Your task to perform on an android device: open wifi settings Image 0: 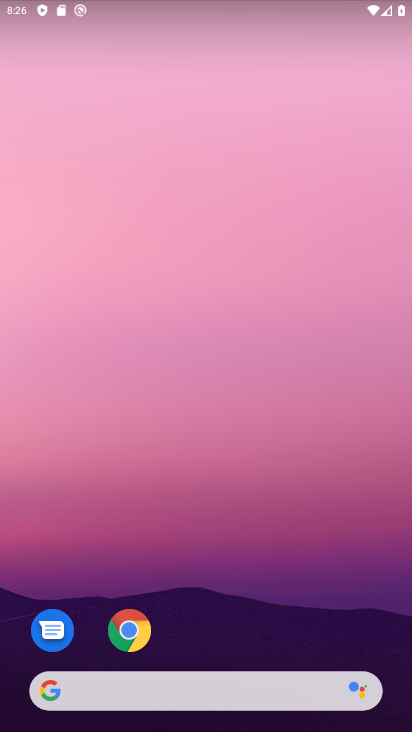
Step 0: drag from (379, 651) to (384, 149)
Your task to perform on an android device: open wifi settings Image 1: 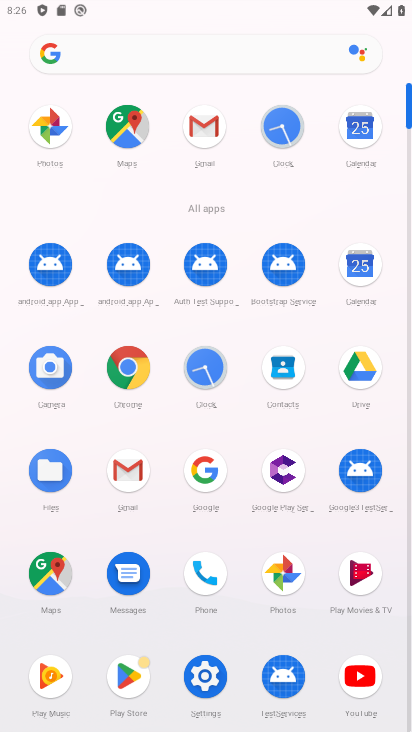
Step 1: click (203, 679)
Your task to perform on an android device: open wifi settings Image 2: 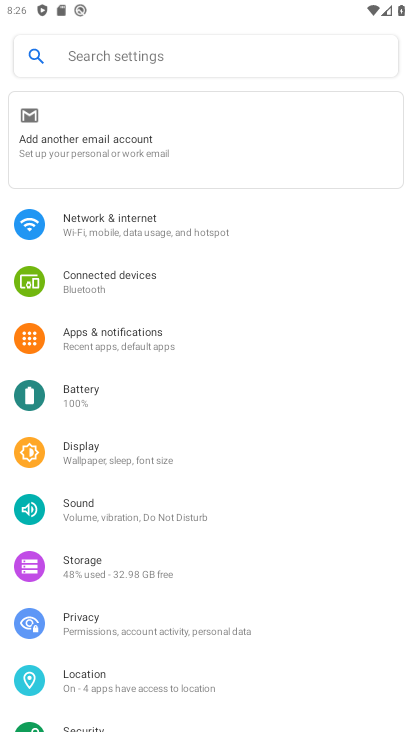
Step 2: click (89, 219)
Your task to perform on an android device: open wifi settings Image 3: 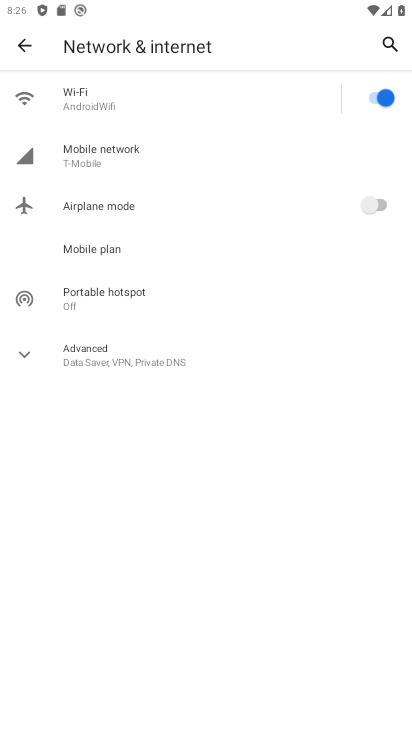
Step 3: click (21, 355)
Your task to perform on an android device: open wifi settings Image 4: 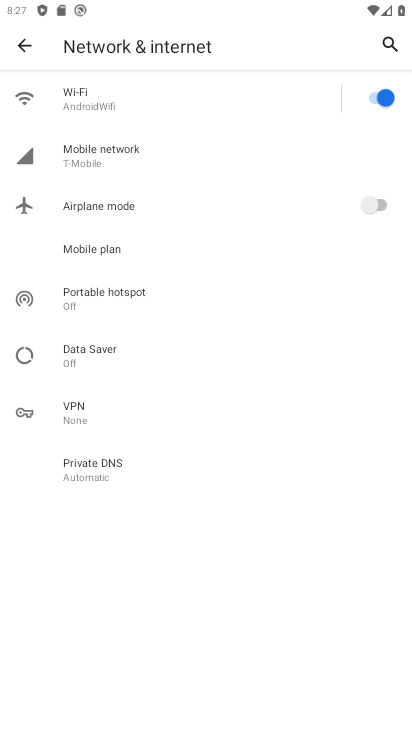
Step 4: click (86, 94)
Your task to perform on an android device: open wifi settings Image 5: 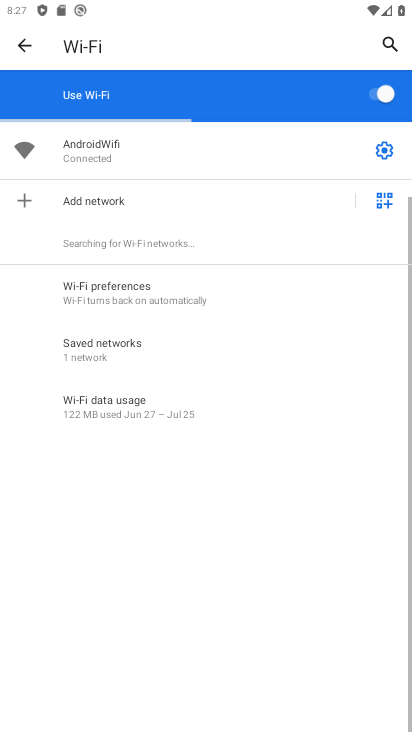
Step 5: task complete